Your task to perform on an android device: turn notification dots on Image 0: 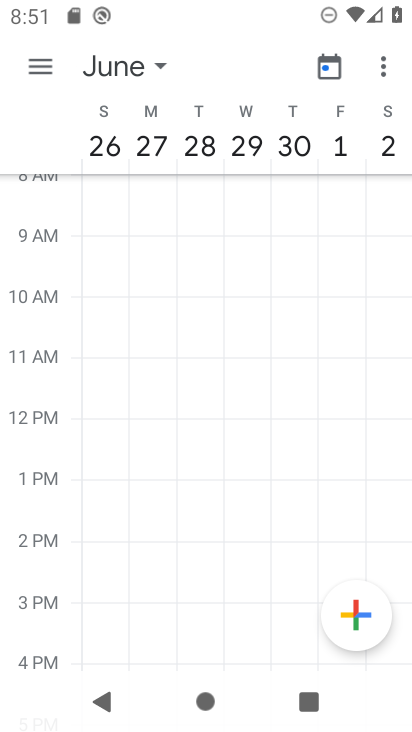
Step 0: press home button
Your task to perform on an android device: turn notification dots on Image 1: 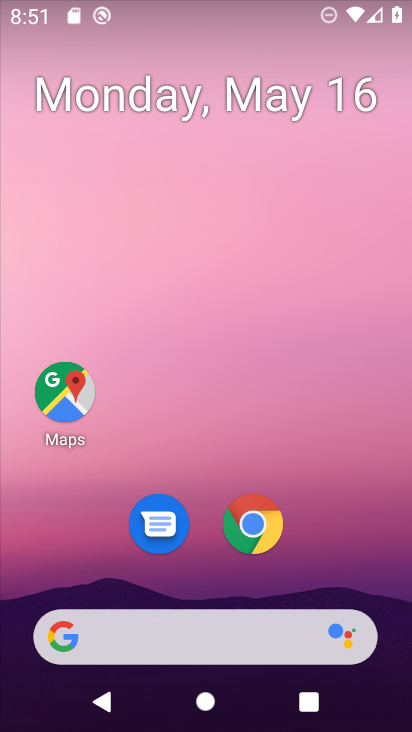
Step 1: drag from (309, 522) to (259, 75)
Your task to perform on an android device: turn notification dots on Image 2: 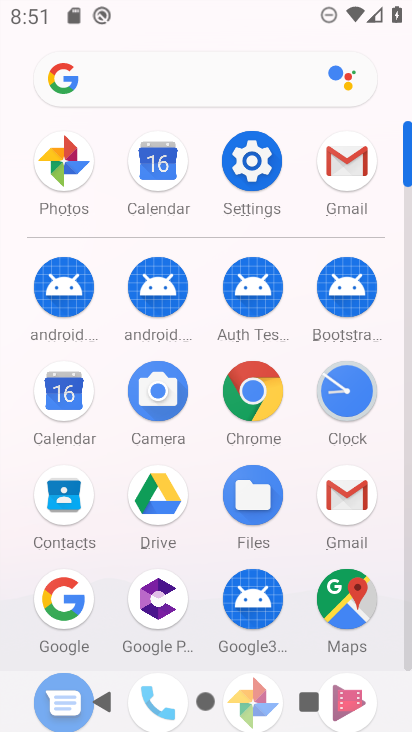
Step 2: click (247, 154)
Your task to perform on an android device: turn notification dots on Image 3: 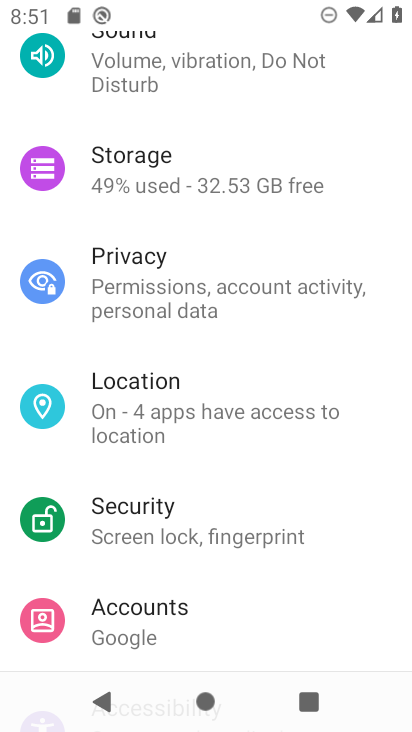
Step 3: drag from (247, 153) to (245, 645)
Your task to perform on an android device: turn notification dots on Image 4: 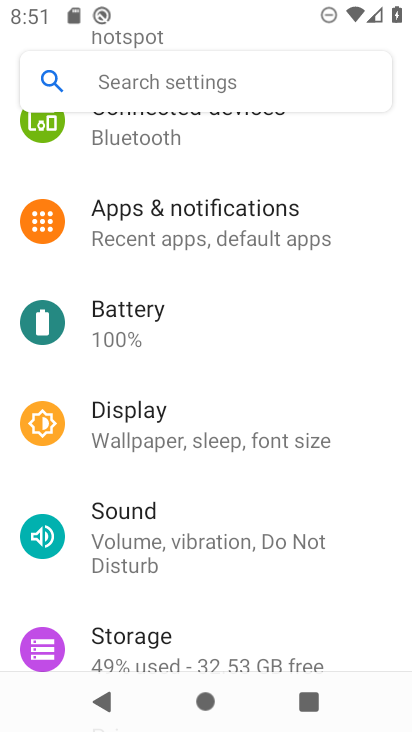
Step 4: click (227, 223)
Your task to perform on an android device: turn notification dots on Image 5: 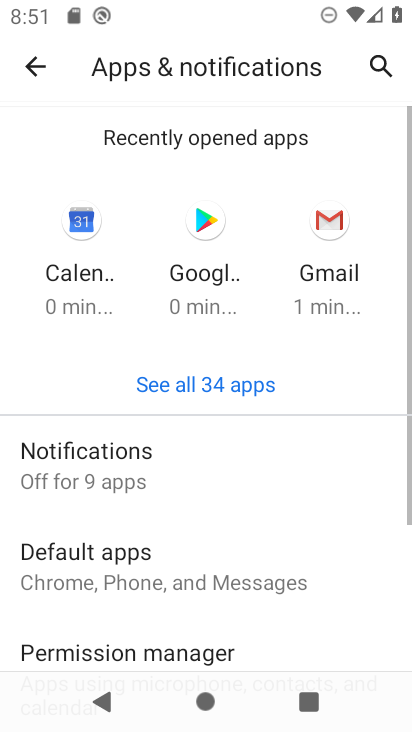
Step 5: click (100, 458)
Your task to perform on an android device: turn notification dots on Image 6: 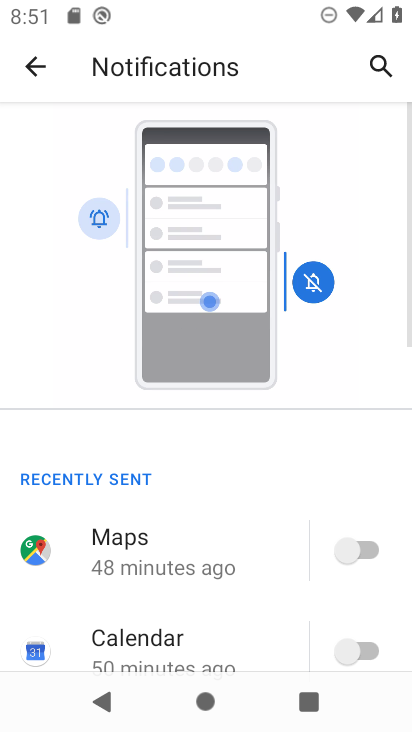
Step 6: drag from (256, 596) to (199, 50)
Your task to perform on an android device: turn notification dots on Image 7: 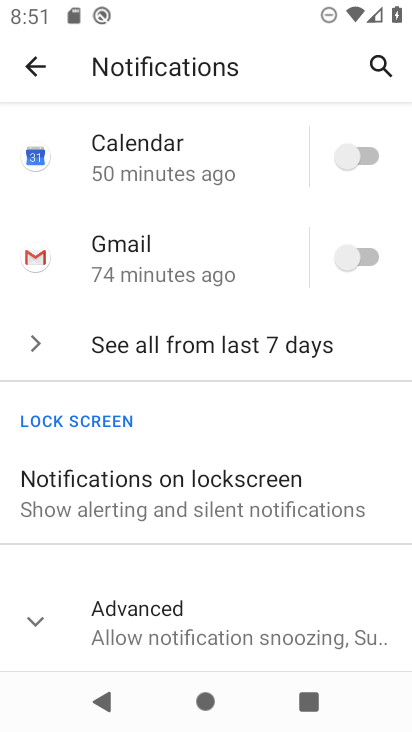
Step 7: click (25, 621)
Your task to perform on an android device: turn notification dots on Image 8: 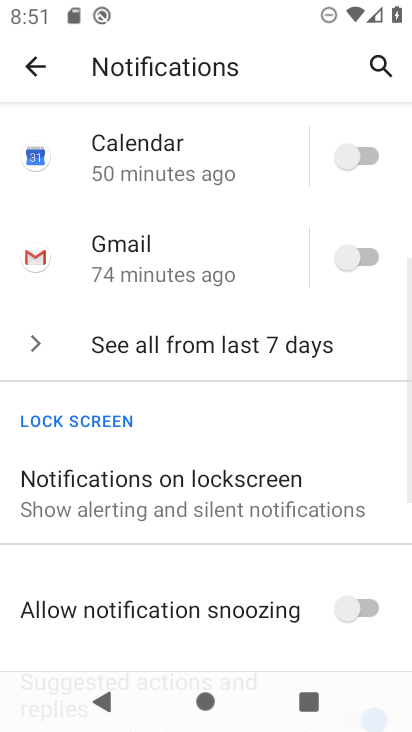
Step 8: drag from (250, 583) to (247, 230)
Your task to perform on an android device: turn notification dots on Image 9: 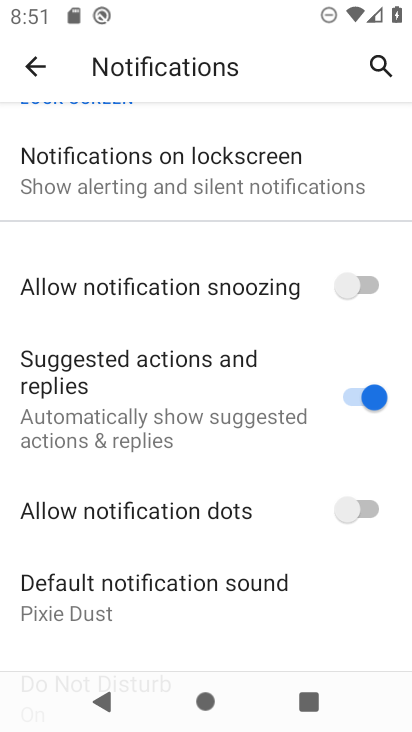
Step 9: click (364, 505)
Your task to perform on an android device: turn notification dots on Image 10: 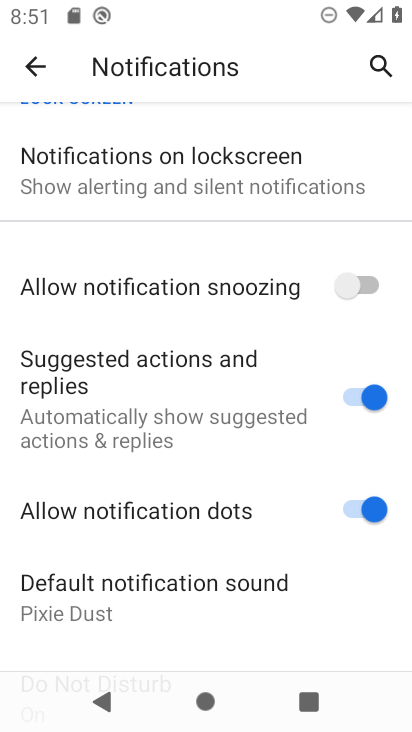
Step 10: task complete